Your task to perform on an android device: turn off sleep mode Image 0: 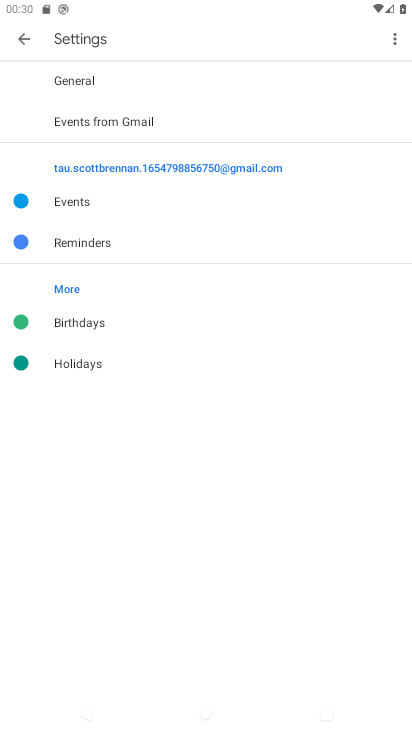
Step 0: press home button
Your task to perform on an android device: turn off sleep mode Image 1: 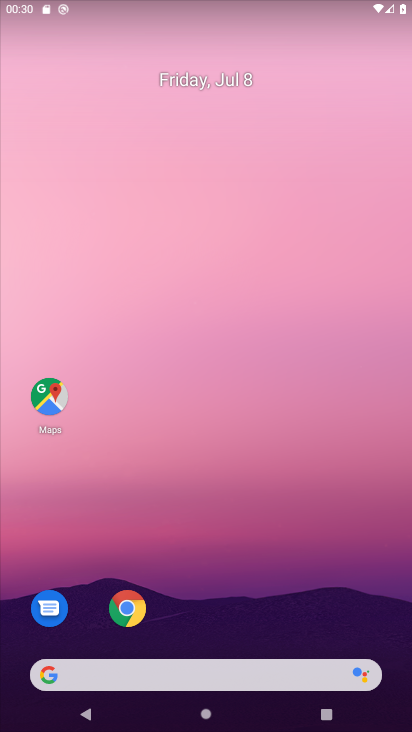
Step 1: drag from (196, 595) to (196, 187)
Your task to perform on an android device: turn off sleep mode Image 2: 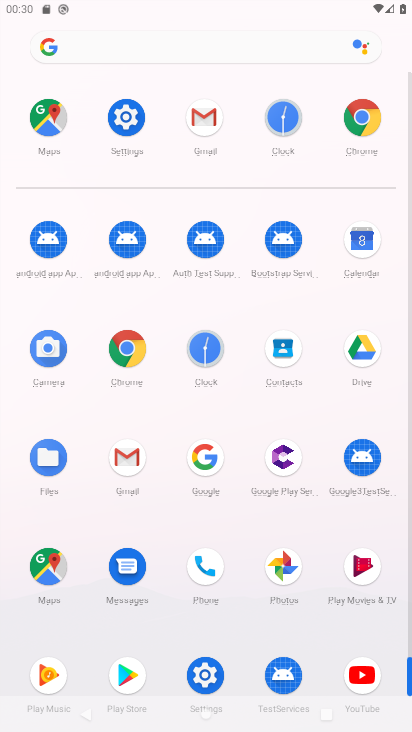
Step 2: click (128, 106)
Your task to perform on an android device: turn off sleep mode Image 3: 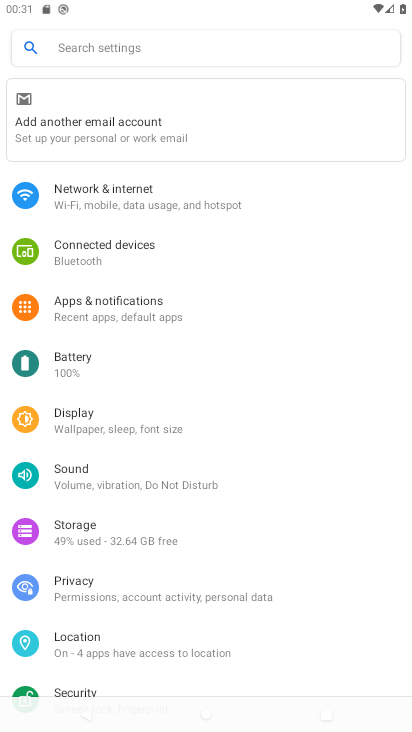
Step 3: task complete